Your task to perform on an android device: Open sound settings Image 0: 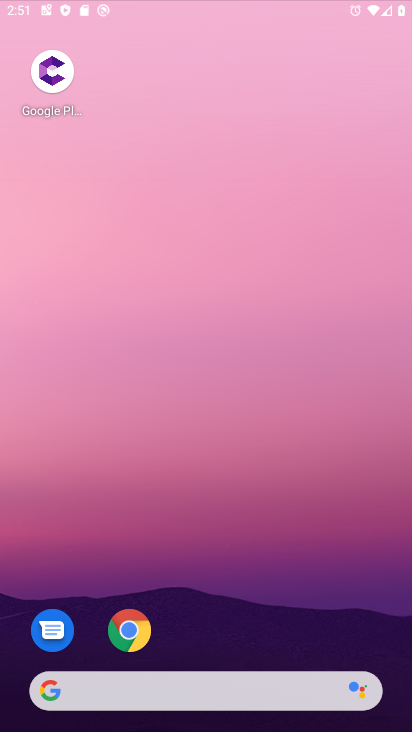
Step 0: click (160, 286)
Your task to perform on an android device: Open sound settings Image 1: 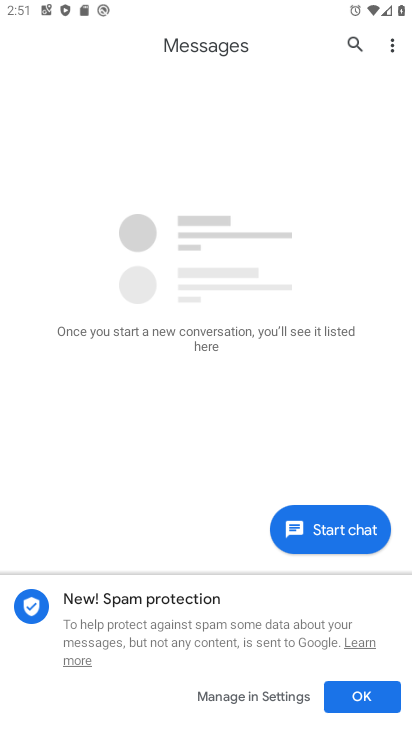
Step 1: press home button
Your task to perform on an android device: Open sound settings Image 2: 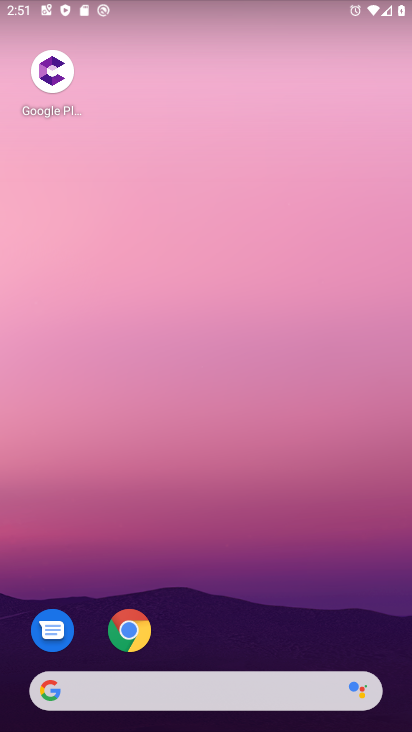
Step 2: drag from (195, 666) to (234, 232)
Your task to perform on an android device: Open sound settings Image 3: 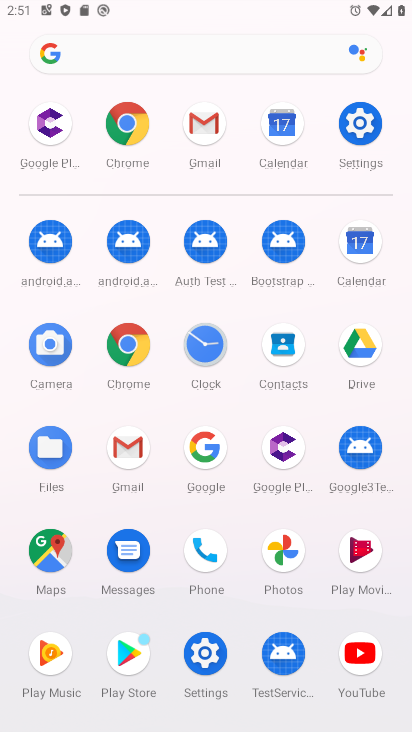
Step 3: click (358, 115)
Your task to perform on an android device: Open sound settings Image 4: 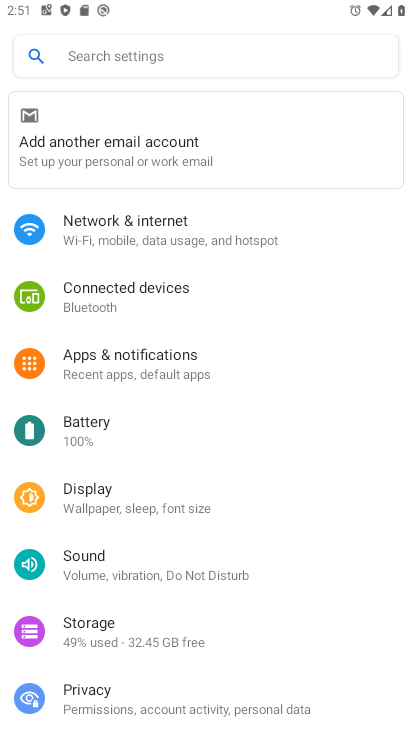
Step 4: click (89, 570)
Your task to perform on an android device: Open sound settings Image 5: 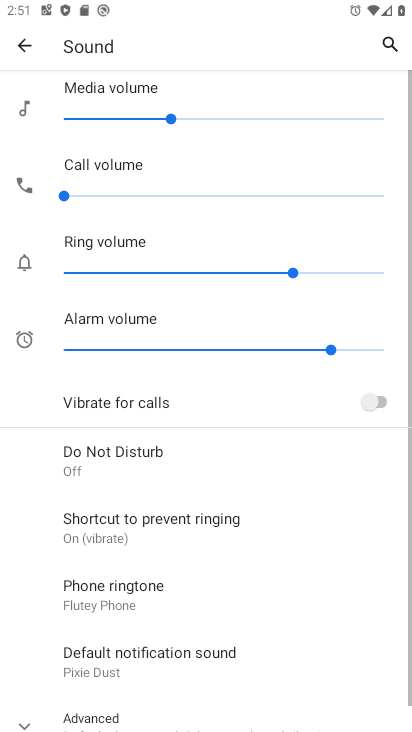
Step 5: drag from (117, 663) to (215, 240)
Your task to perform on an android device: Open sound settings Image 6: 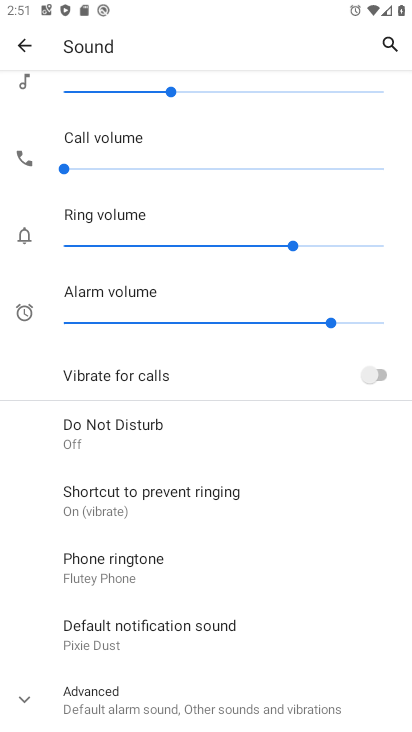
Step 6: click (88, 697)
Your task to perform on an android device: Open sound settings Image 7: 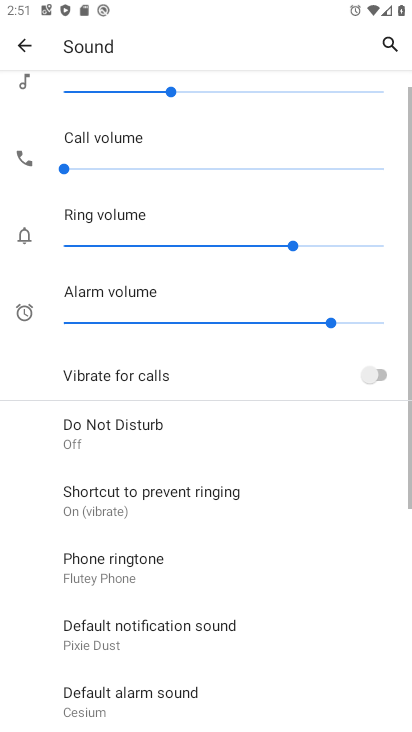
Step 7: task complete